Your task to perform on an android device: open sync settings in chrome Image 0: 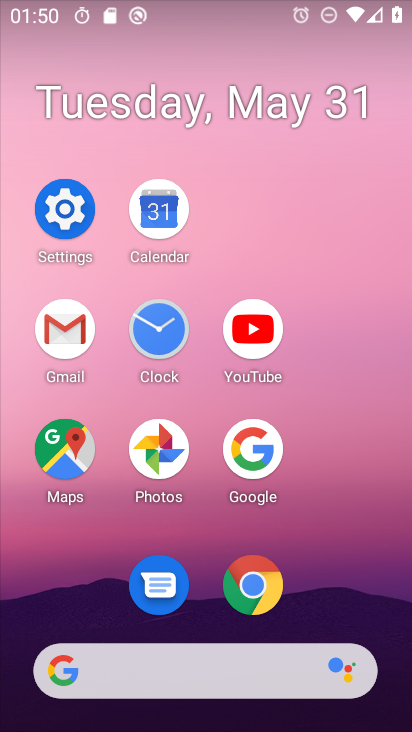
Step 0: click (261, 595)
Your task to perform on an android device: open sync settings in chrome Image 1: 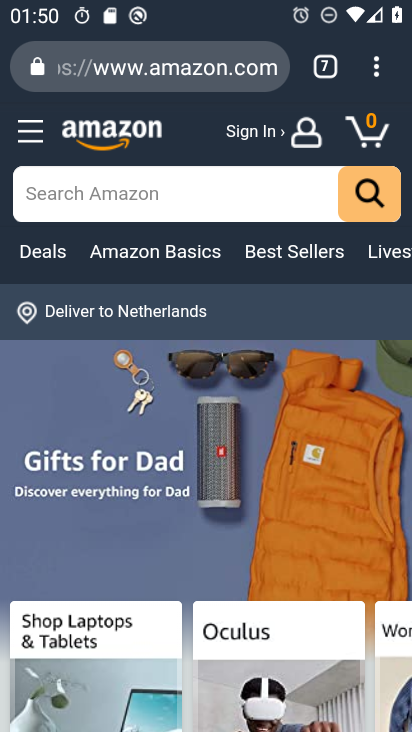
Step 1: click (372, 80)
Your task to perform on an android device: open sync settings in chrome Image 2: 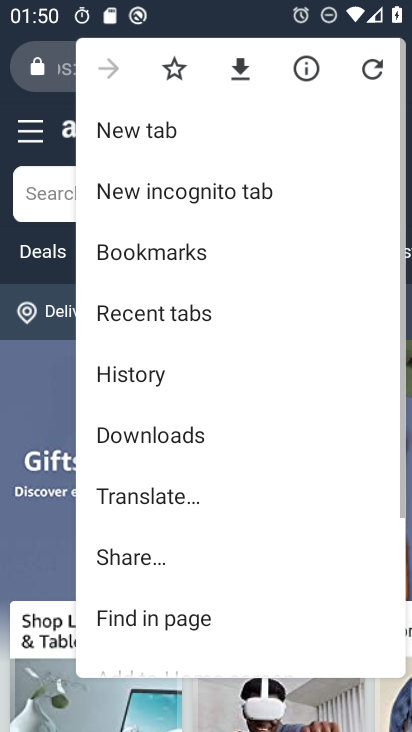
Step 2: drag from (294, 418) to (324, 156)
Your task to perform on an android device: open sync settings in chrome Image 3: 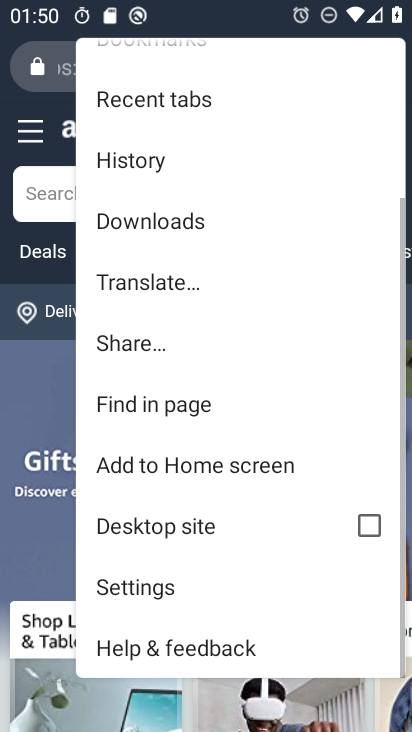
Step 3: click (205, 578)
Your task to perform on an android device: open sync settings in chrome Image 4: 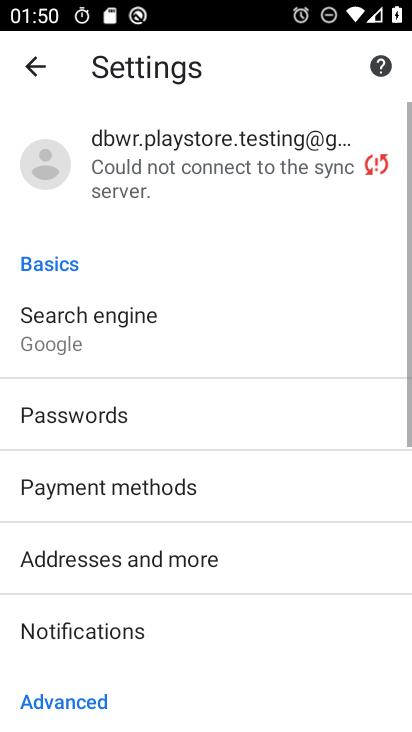
Step 4: drag from (205, 578) to (234, 192)
Your task to perform on an android device: open sync settings in chrome Image 5: 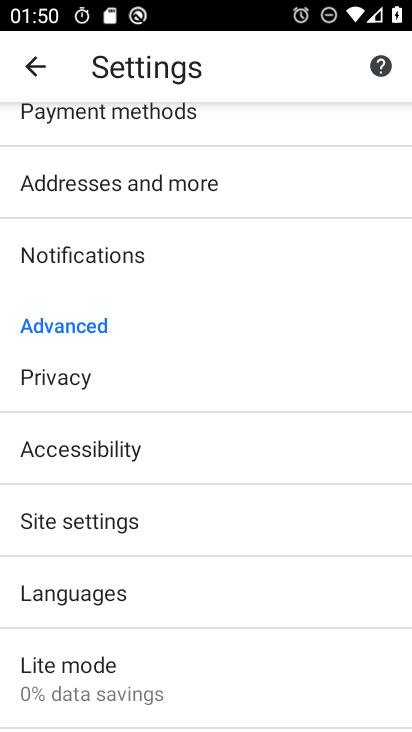
Step 5: click (179, 540)
Your task to perform on an android device: open sync settings in chrome Image 6: 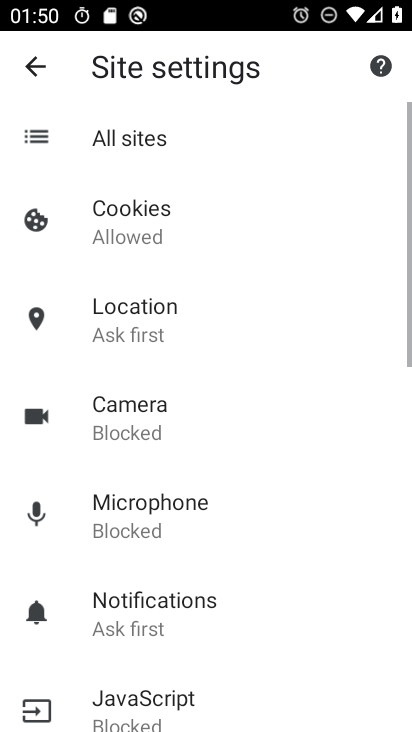
Step 6: drag from (180, 532) to (231, 143)
Your task to perform on an android device: open sync settings in chrome Image 7: 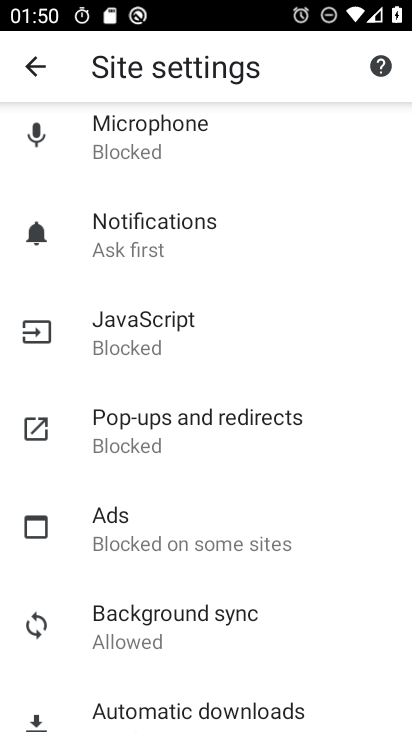
Step 7: click (215, 605)
Your task to perform on an android device: open sync settings in chrome Image 8: 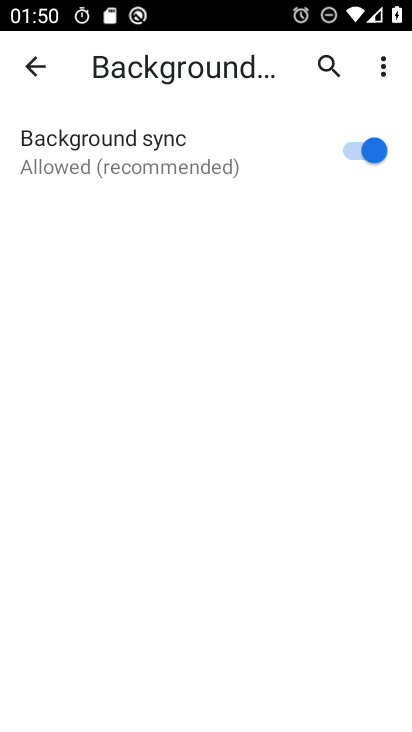
Step 8: task complete